Your task to perform on an android device: Search for the best rated headphones on Amazon Image 0: 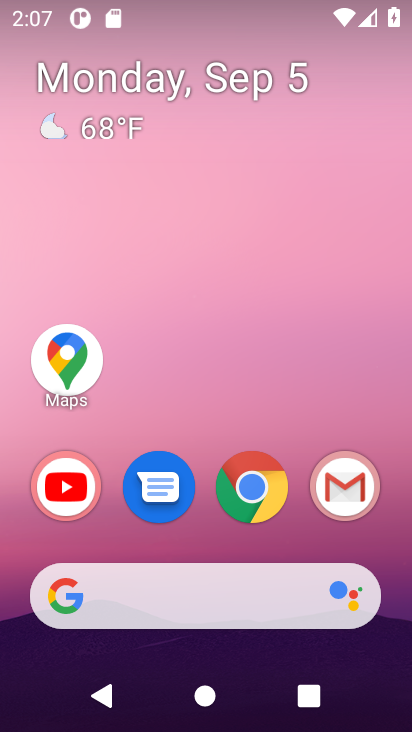
Step 0: click (224, 497)
Your task to perform on an android device: Search for the best rated headphones on Amazon Image 1: 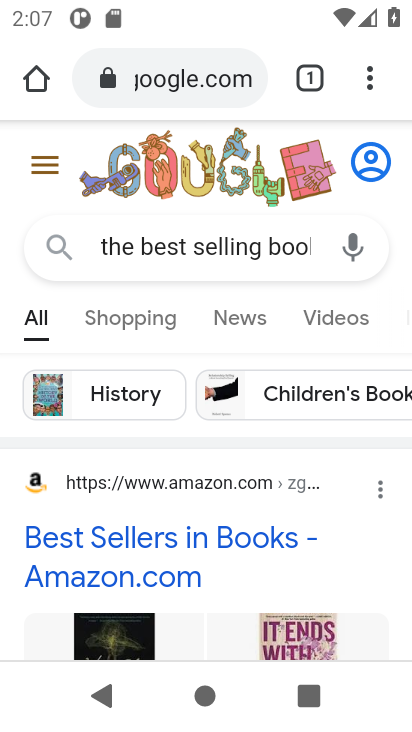
Step 1: drag from (344, 731) to (399, 605)
Your task to perform on an android device: Search for the best rated headphones on Amazon Image 2: 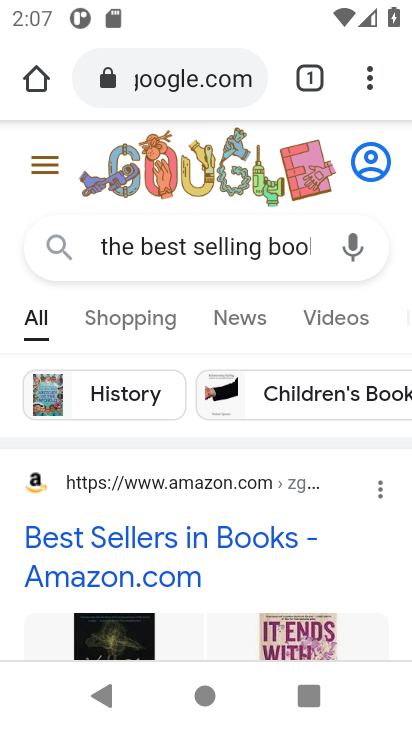
Step 2: click (156, 72)
Your task to perform on an android device: Search for the best rated headphones on Amazon Image 3: 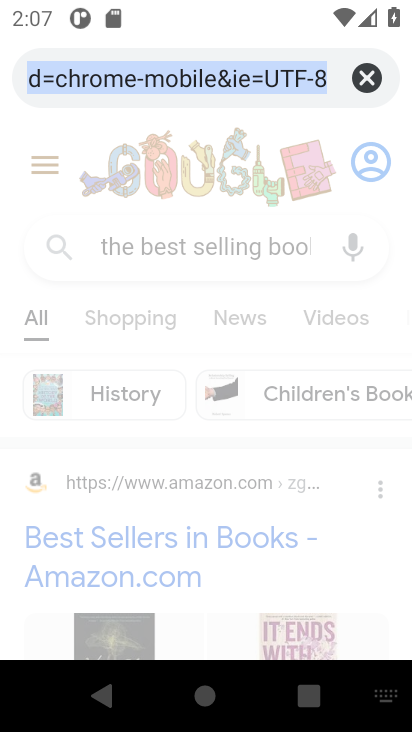
Step 3: click (366, 75)
Your task to perform on an android device: Search for the best rated headphones on Amazon Image 4: 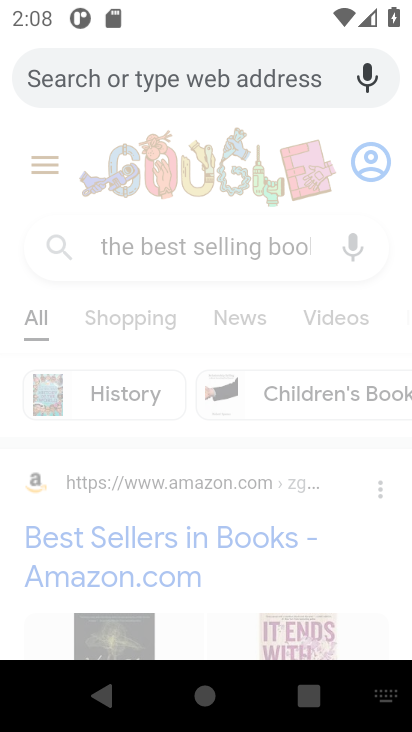
Step 4: type "the best rated headphones on Amaz"
Your task to perform on an android device: Search for the best rated headphones on Amazon Image 5: 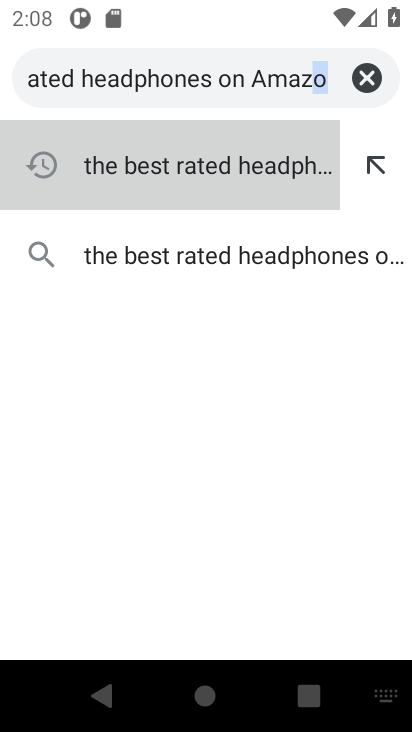
Step 5: click (232, 154)
Your task to perform on an android device: Search for the best rated headphones on Amazon Image 6: 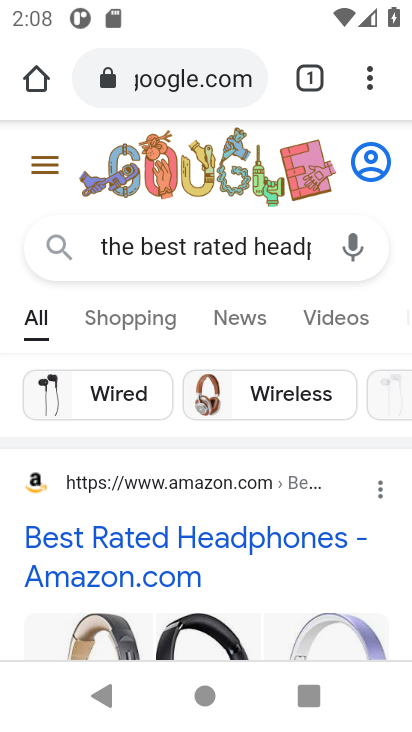
Step 6: task complete